Your task to perform on an android device: open chrome and create a bookmark for the current page Image 0: 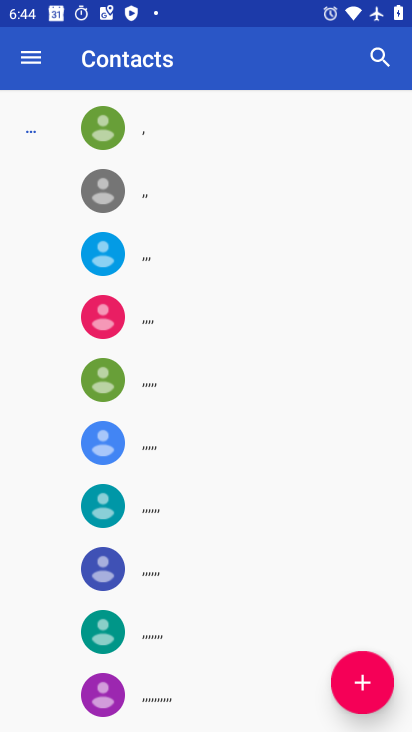
Step 0: press home button
Your task to perform on an android device: open chrome and create a bookmark for the current page Image 1: 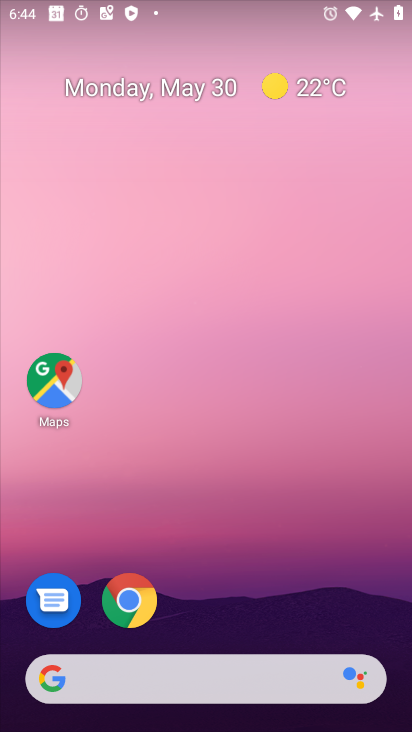
Step 1: click (142, 611)
Your task to perform on an android device: open chrome and create a bookmark for the current page Image 2: 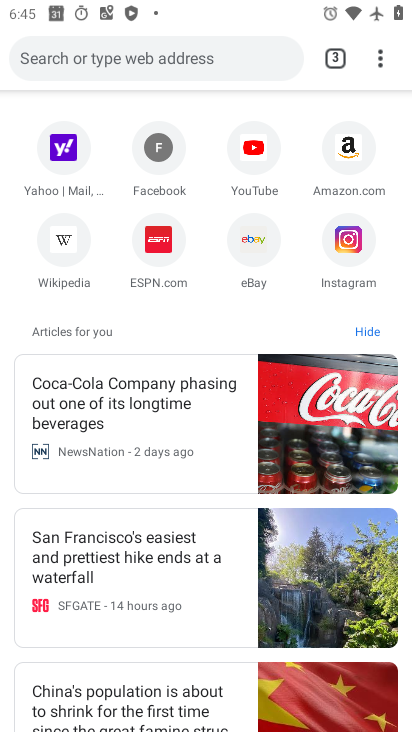
Step 2: task complete